Your task to perform on an android device: toggle location history Image 0: 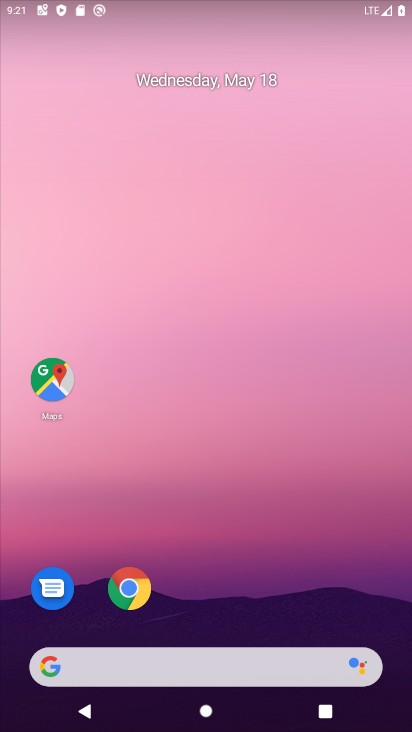
Step 0: click (50, 383)
Your task to perform on an android device: toggle location history Image 1: 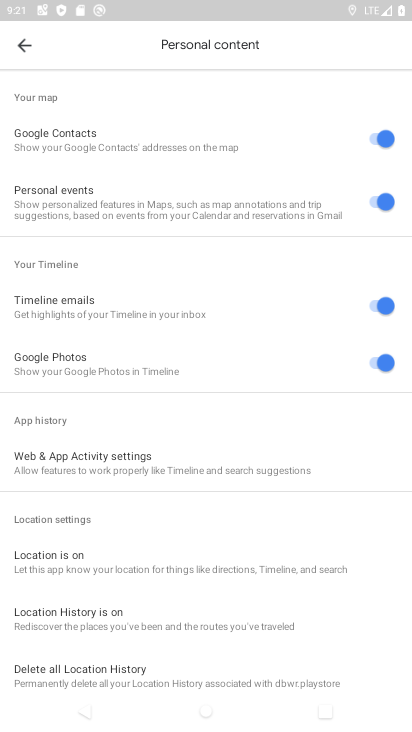
Step 1: click (72, 620)
Your task to perform on an android device: toggle location history Image 2: 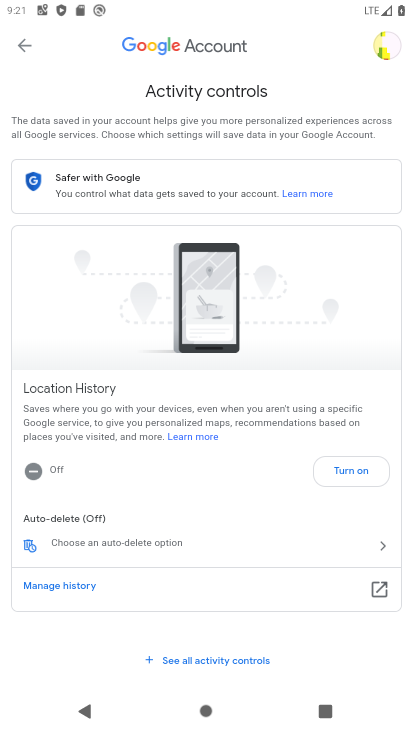
Step 2: click (353, 469)
Your task to perform on an android device: toggle location history Image 3: 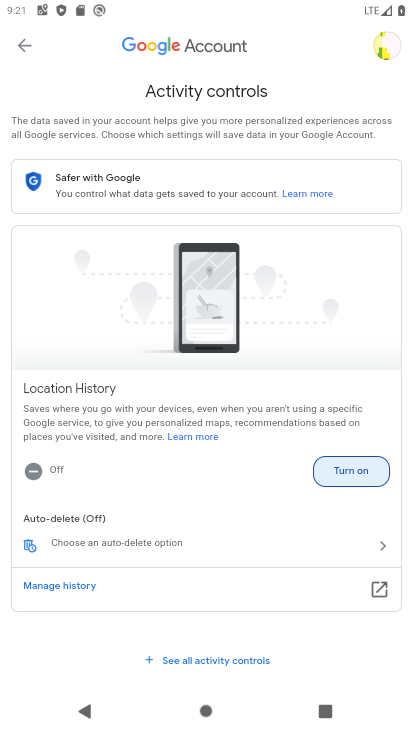
Step 3: click (353, 469)
Your task to perform on an android device: toggle location history Image 4: 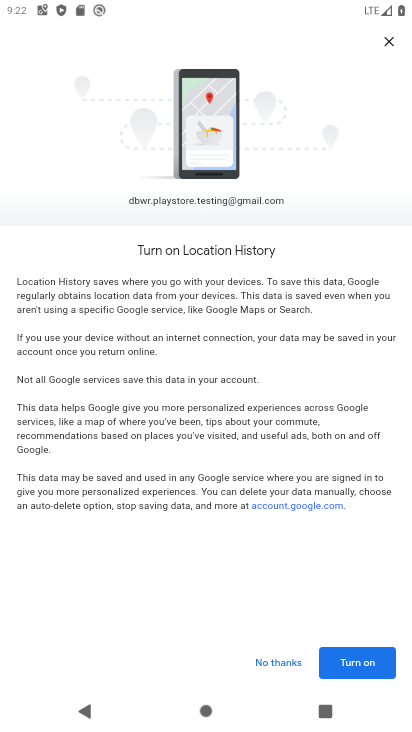
Step 4: click (354, 668)
Your task to perform on an android device: toggle location history Image 5: 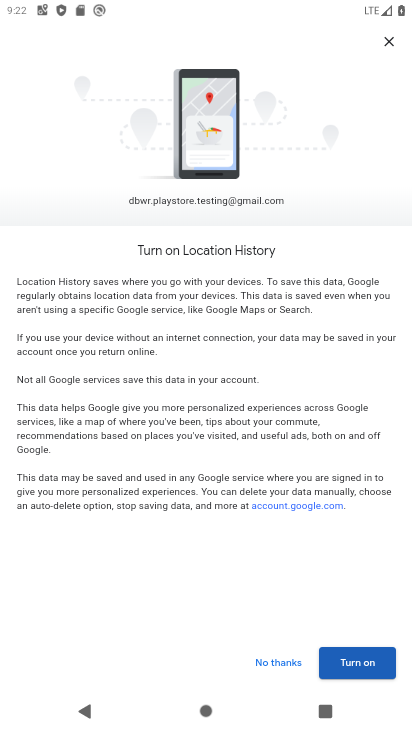
Step 5: click (354, 668)
Your task to perform on an android device: toggle location history Image 6: 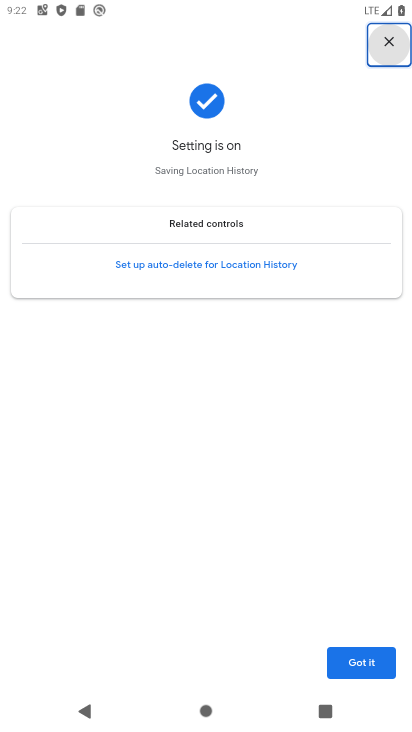
Step 6: click (354, 672)
Your task to perform on an android device: toggle location history Image 7: 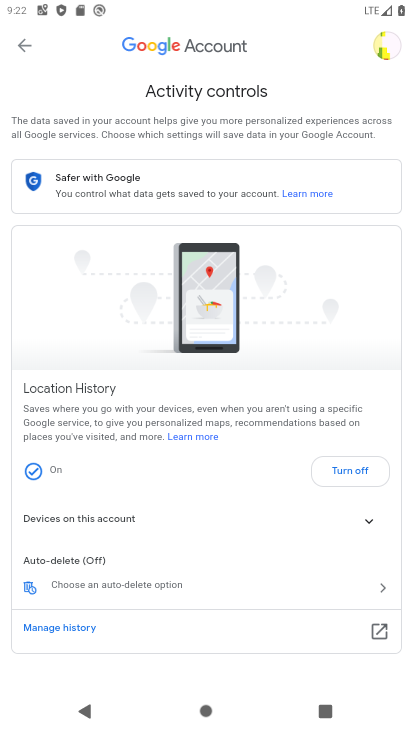
Step 7: task complete